Your task to perform on an android device: turn off airplane mode Image 0: 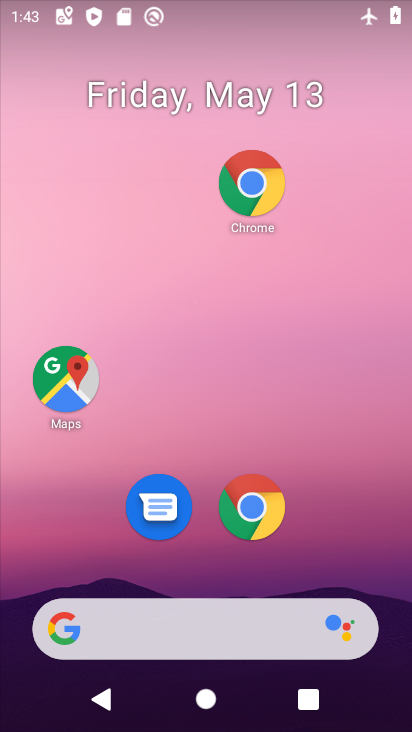
Step 0: drag from (326, 555) to (332, 67)
Your task to perform on an android device: turn off airplane mode Image 1: 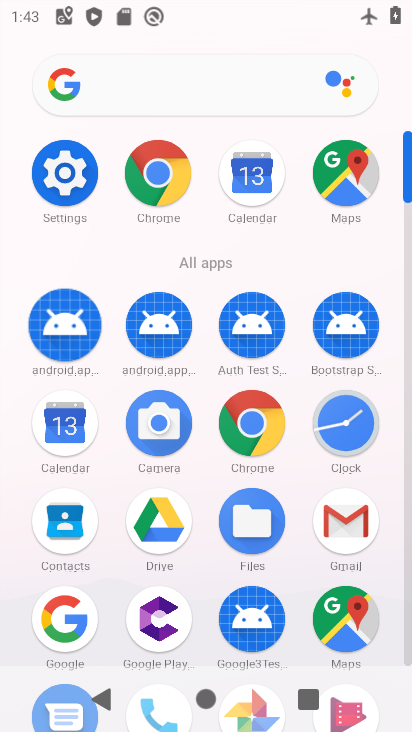
Step 1: click (91, 185)
Your task to perform on an android device: turn off airplane mode Image 2: 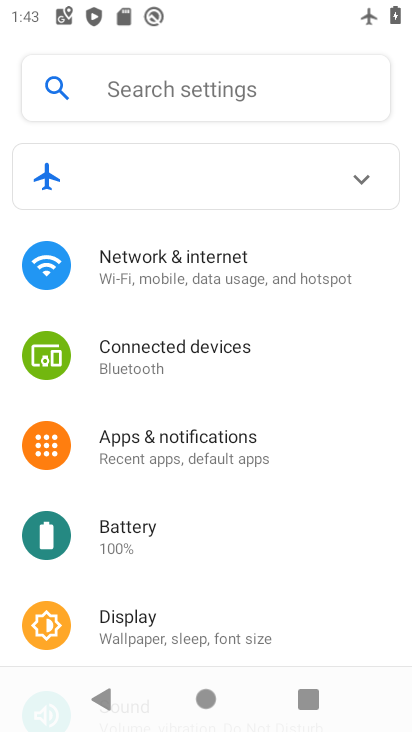
Step 2: click (154, 268)
Your task to perform on an android device: turn off airplane mode Image 3: 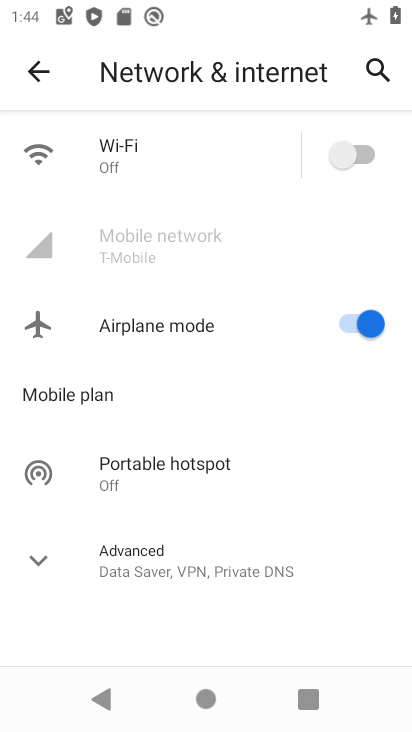
Step 3: click (175, 267)
Your task to perform on an android device: turn off airplane mode Image 4: 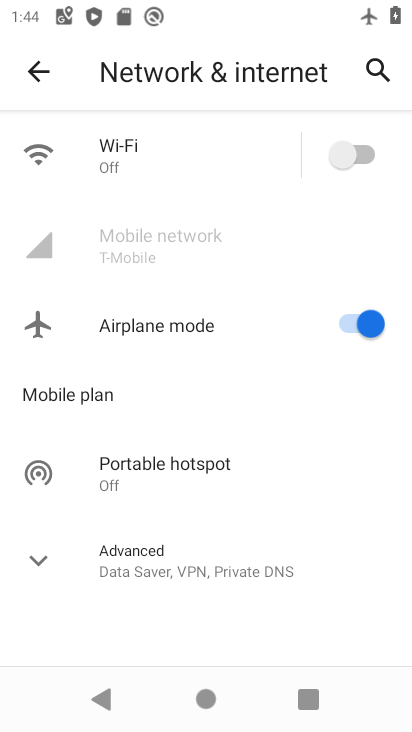
Step 4: click (322, 87)
Your task to perform on an android device: turn off airplane mode Image 5: 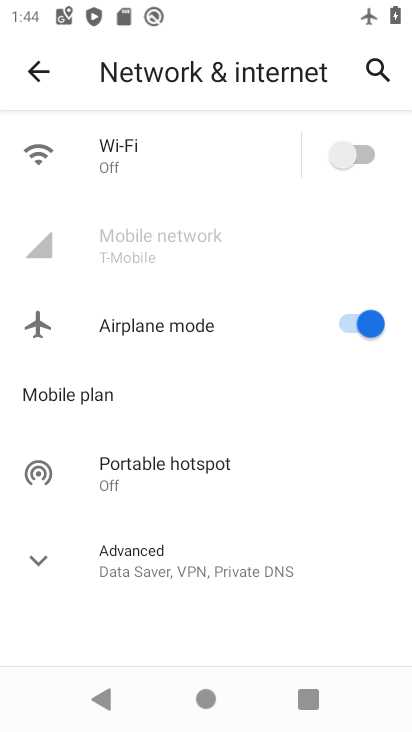
Step 5: click (368, 326)
Your task to perform on an android device: turn off airplane mode Image 6: 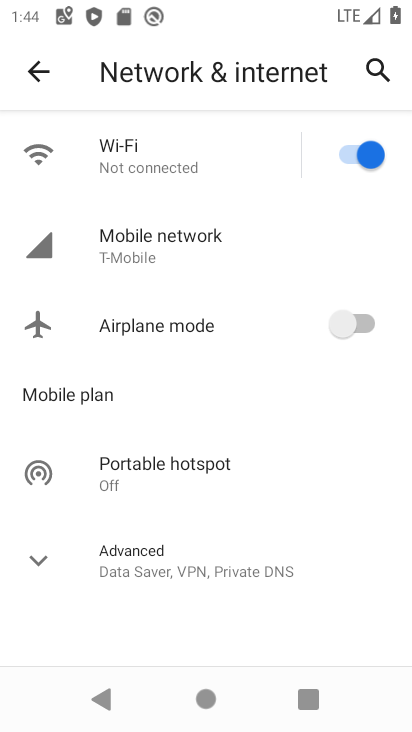
Step 6: click (336, 155)
Your task to perform on an android device: turn off airplane mode Image 7: 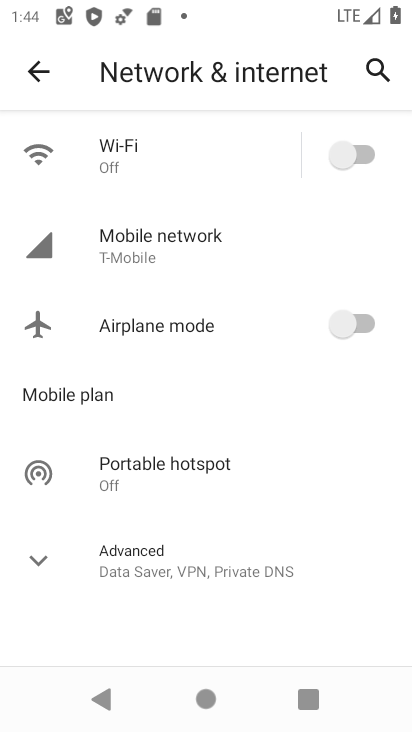
Step 7: task complete